Your task to perform on an android device: change the clock display to analog Image 0: 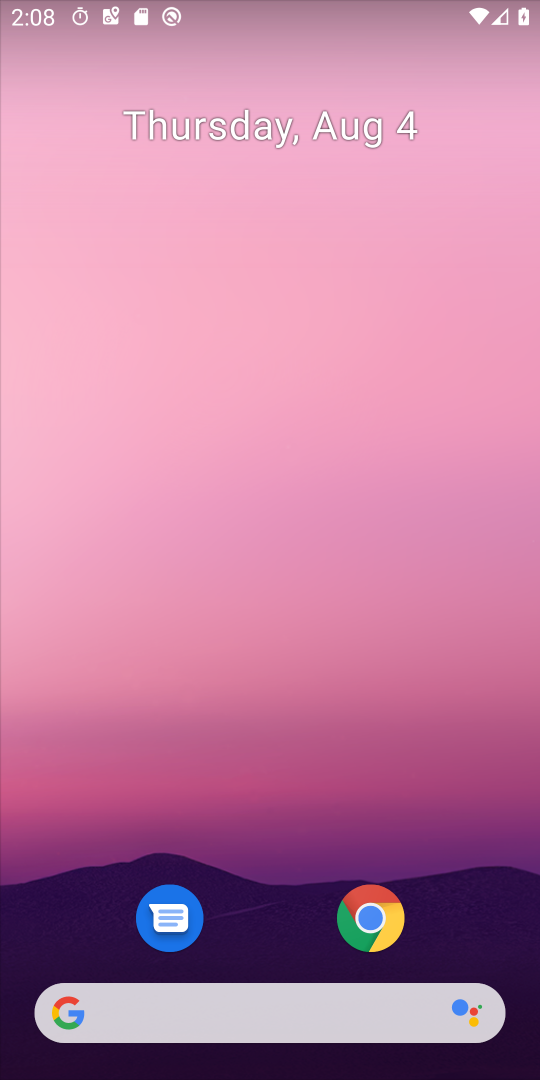
Step 0: drag from (271, 879) to (262, 415)
Your task to perform on an android device: change the clock display to analog Image 1: 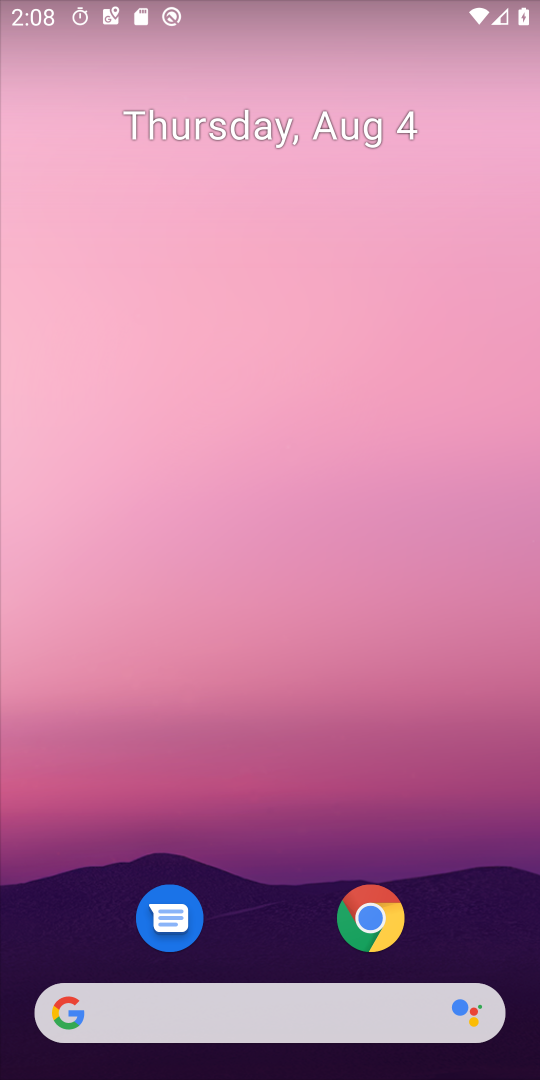
Step 1: drag from (279, 907) to (301, 331)
Your task to perform on an android device: change the clock display to analog Image 2: 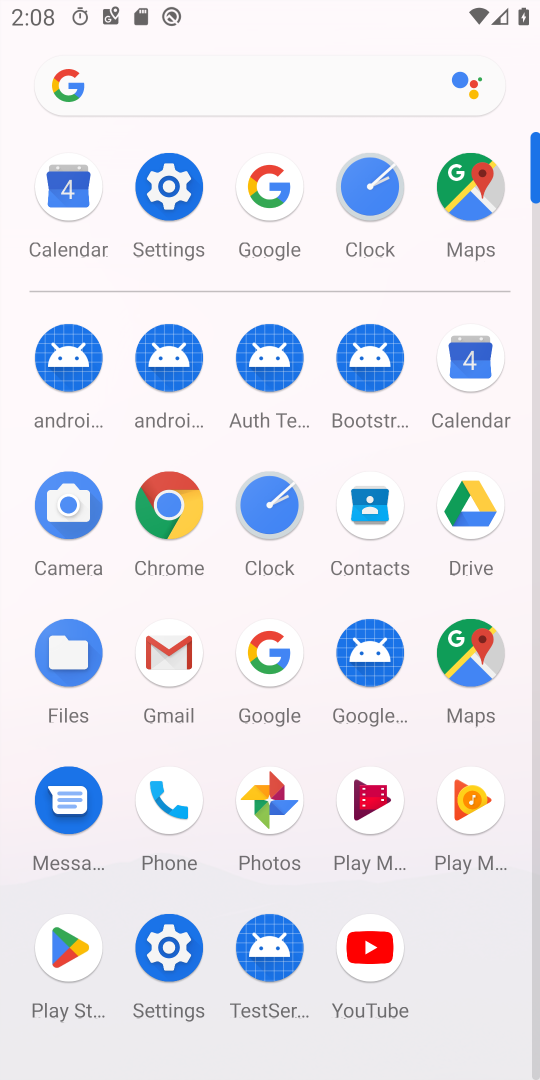
Step 2: click (279, 496)
Your task to perform on an android device: change the clock display to analog Image 3: 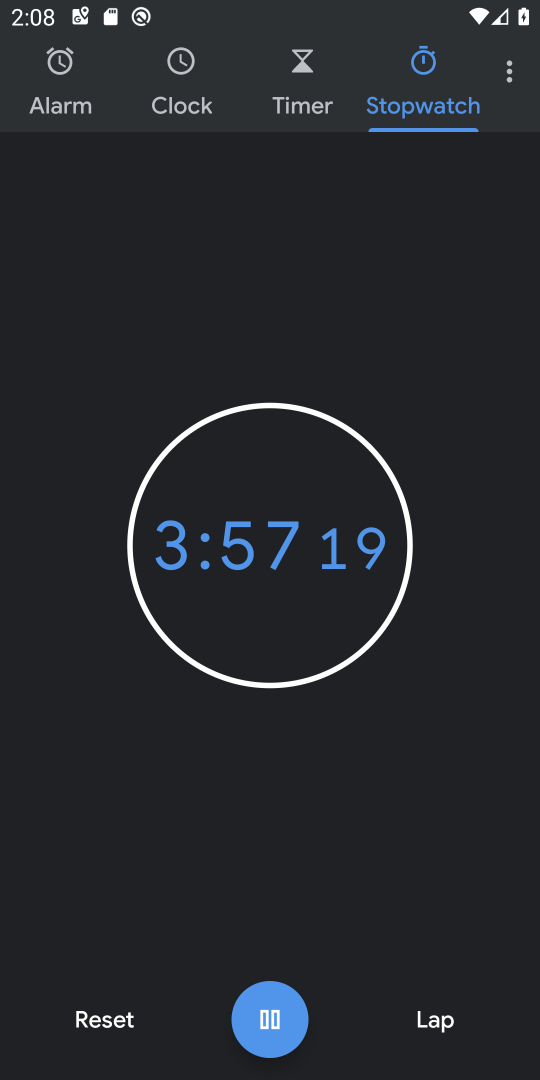
Step 3: click (503, 65)
Your task to perform on an android device: change the clock display to analog Image 4: 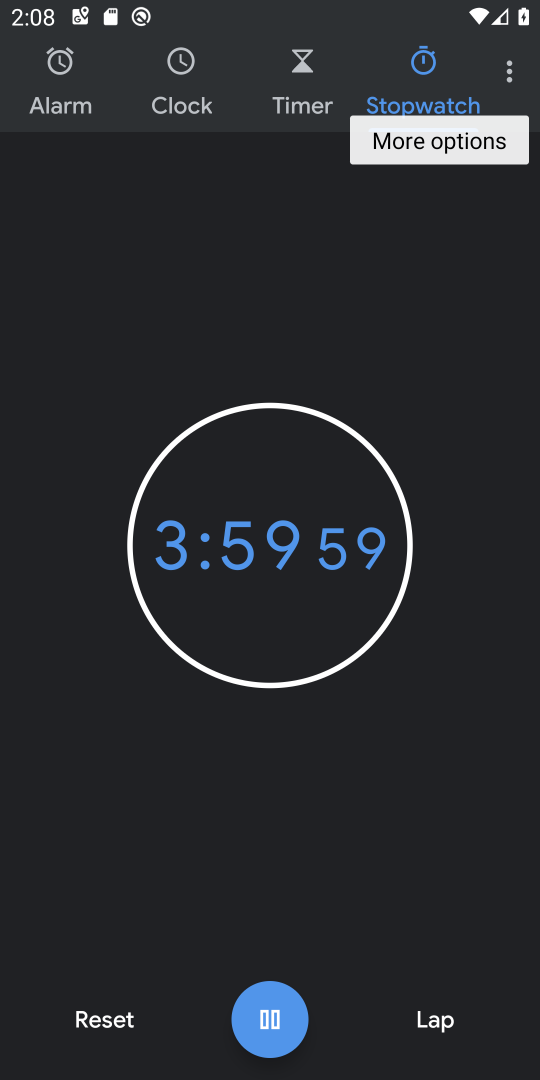
Step 4: click (512, 80)
Your task to perform on an android device: change the clock display to analog Image 5: 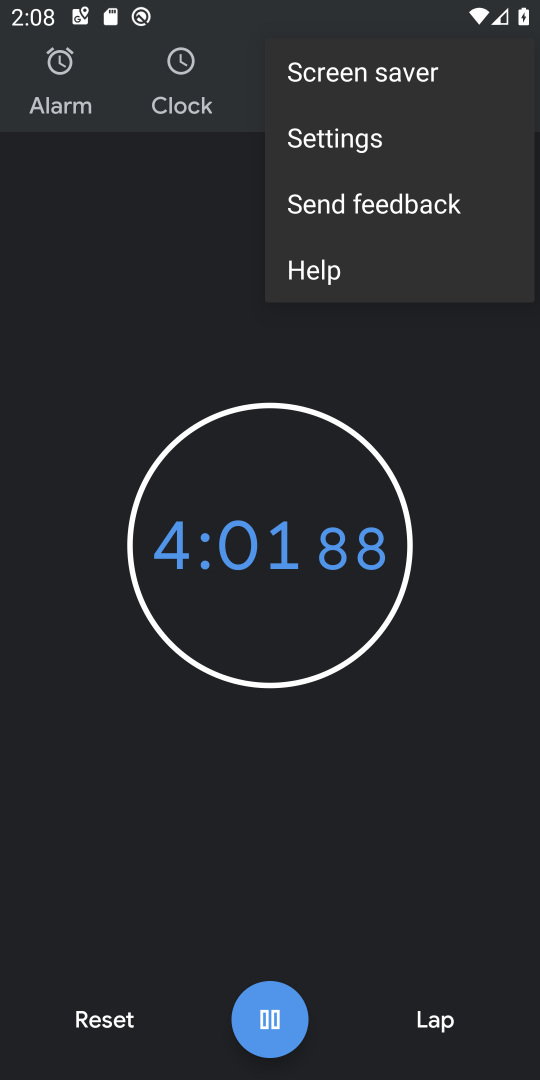
Step 5: click (384, 140)
Your task to perform on an android device: change the clock display to analog Image 6: 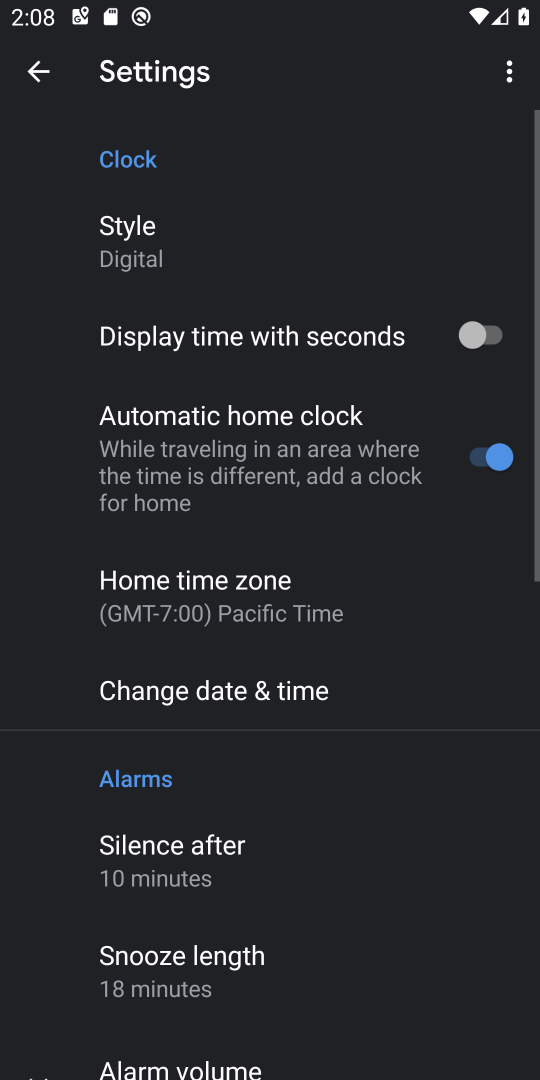
Step 6: click (203, 223)
Your task to perform on an android device: change the clock display to analog Image 7: 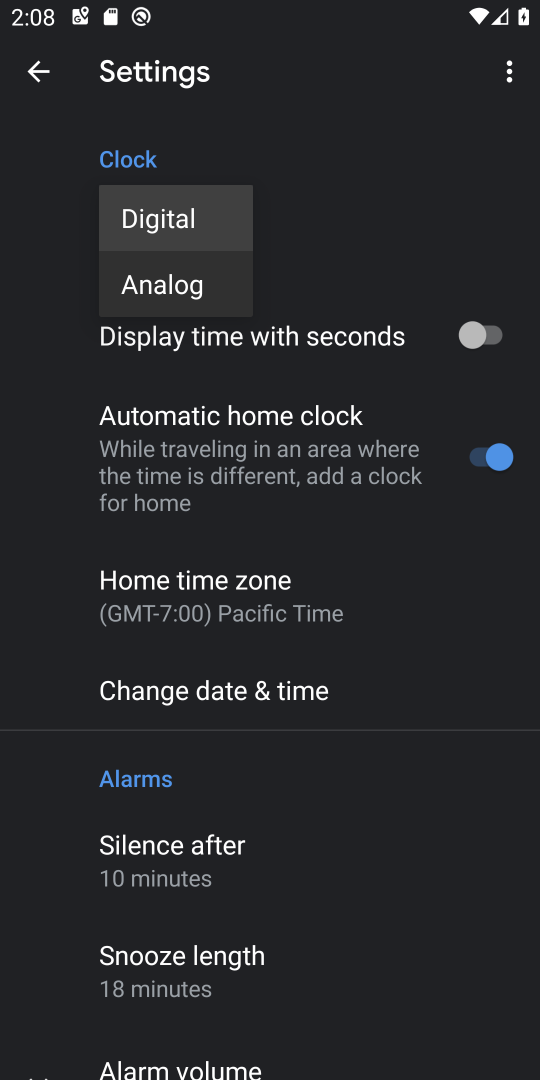
Step 7: click (223, 263)
Your task to perform on an android device: change the clock display to analog Image 8: 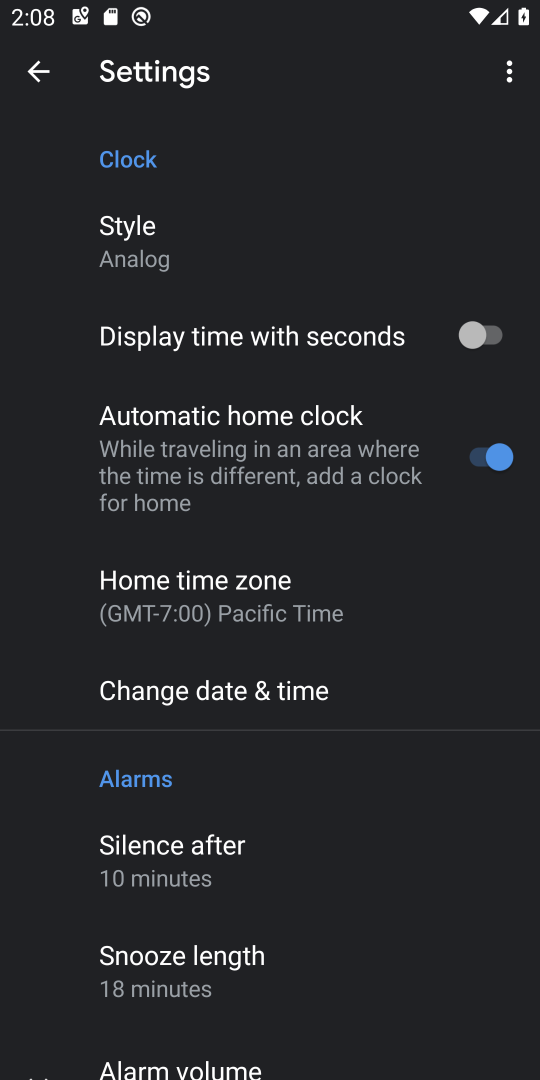
Step 8: task complete